Your task to perform on an android device: Open Google Chrome and click the shortcut for Amazon.com Image 0: 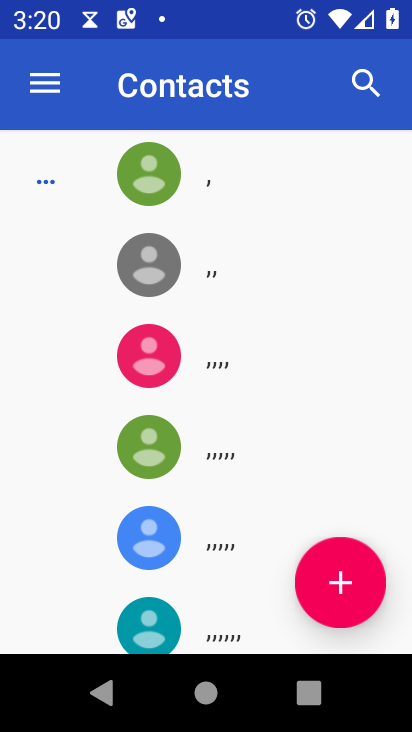
Step 0: press home button
Your task to perform on an android device: Open Google Chrome and click the shortcut for Amazon.com Image 1: 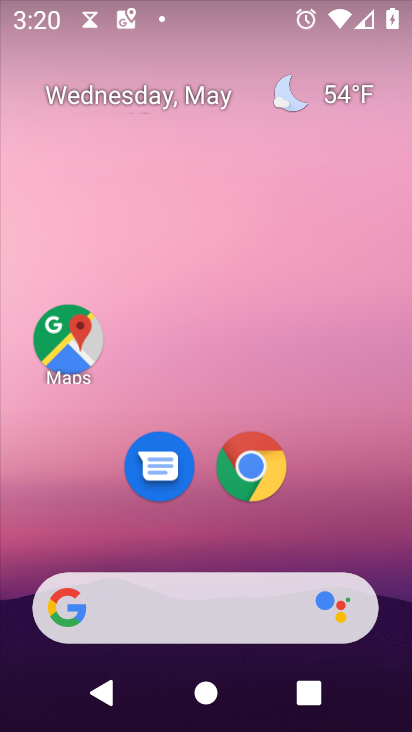
Step 1: click (250, 488)
Your task to perform on an android device: Open Google Chrome and click the shortcut for Amazon.com Image 2: 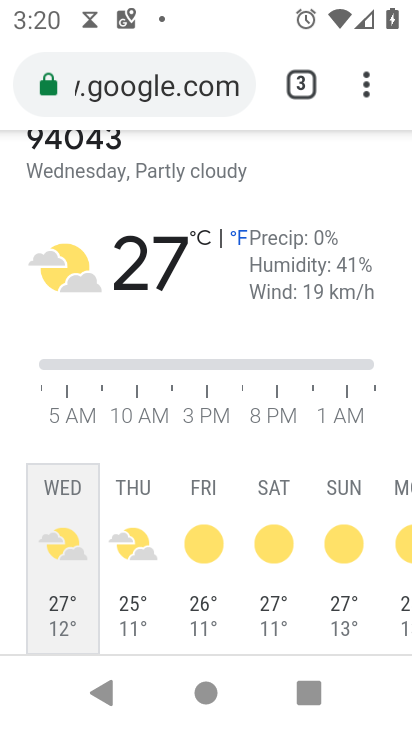
Step 2: click (313, 101)
Your task to perform on an android device: Open Google Chrome and click the shortcut for Amazon.com Image 3: 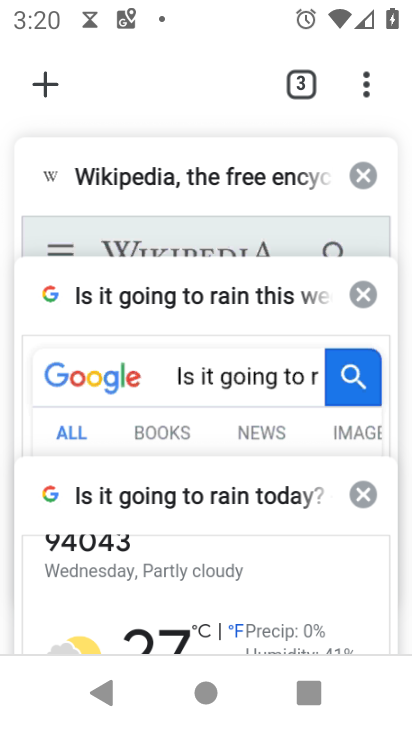
Step 3: click (37, 82)
Your task to perform on an android device: Open Google Chrome and click the shortcut for Amazon.com Image 4: 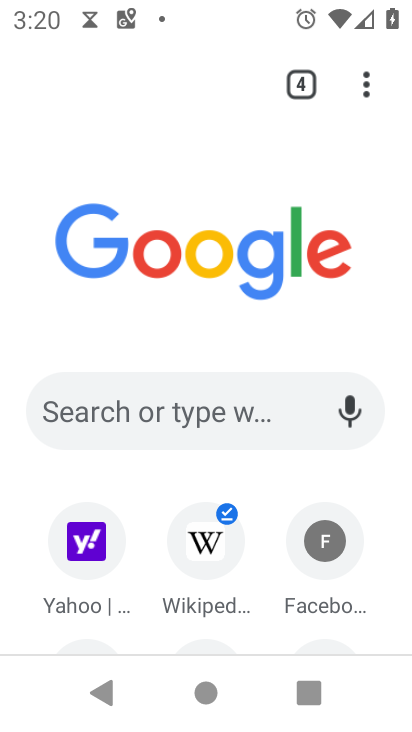
Step 4: drag from (291, 329) to (255, 63)
Your task to perform on an android device: Open Google Chrome and click the shortcut for Amazon.com Image 5: 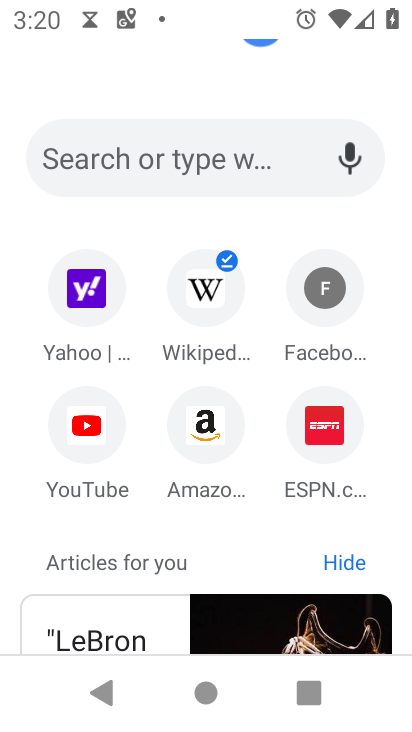
Step 5: click (207, 433)
Your task to perform on an android device: Open Google Chrome and click the shortcut for Amazon.com Image 6: 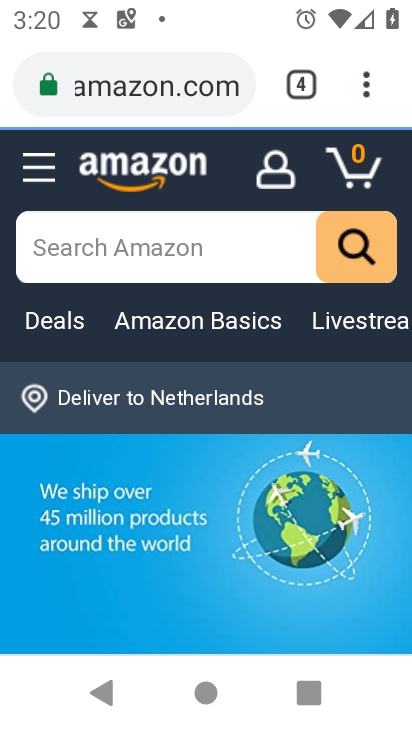
Step 6: task complete